Your task to perform on an android device: Show me the best rated 4K TV on Walmart. Image 0: 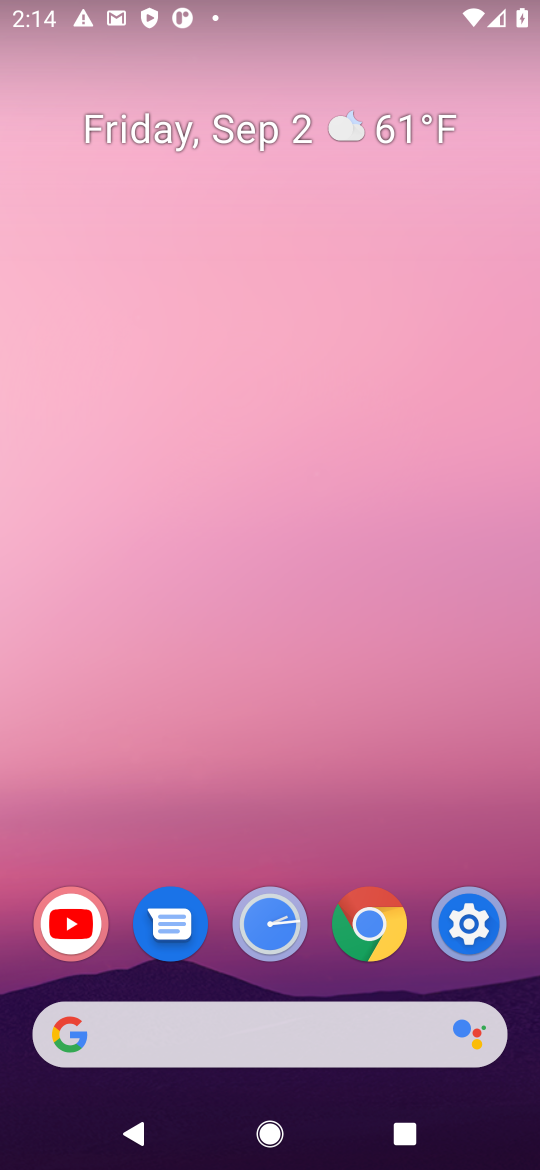
Step 0: click (373, 1040)
Your task to perform on an android device: Show me the best rated 4K TV on Walmart. Image 1: 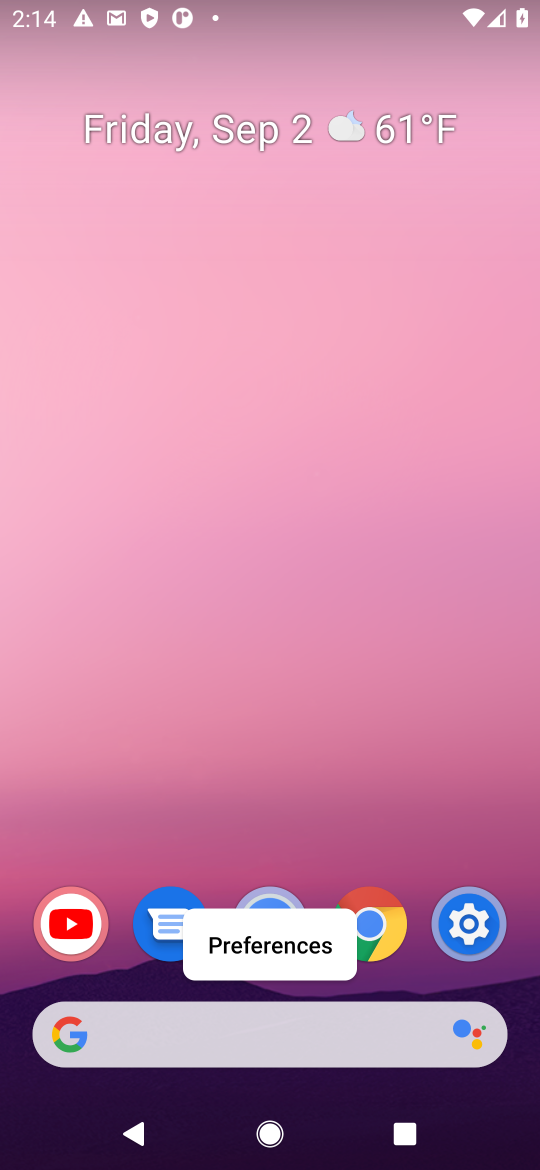
Step 1: click (373, 1040)
Your task to perform on an android device: Show me the best rated 4K TV on Walmart. Image 2: 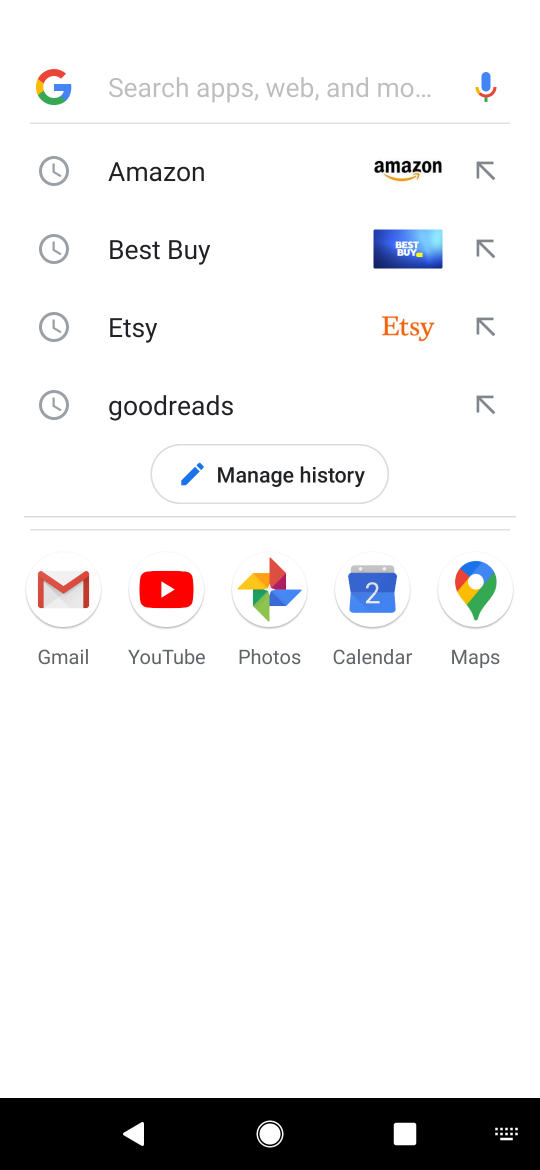
Step 2: press enter
Your task to perform on an android device: Show me the best rated 4K TV on Walmart. Image 3: 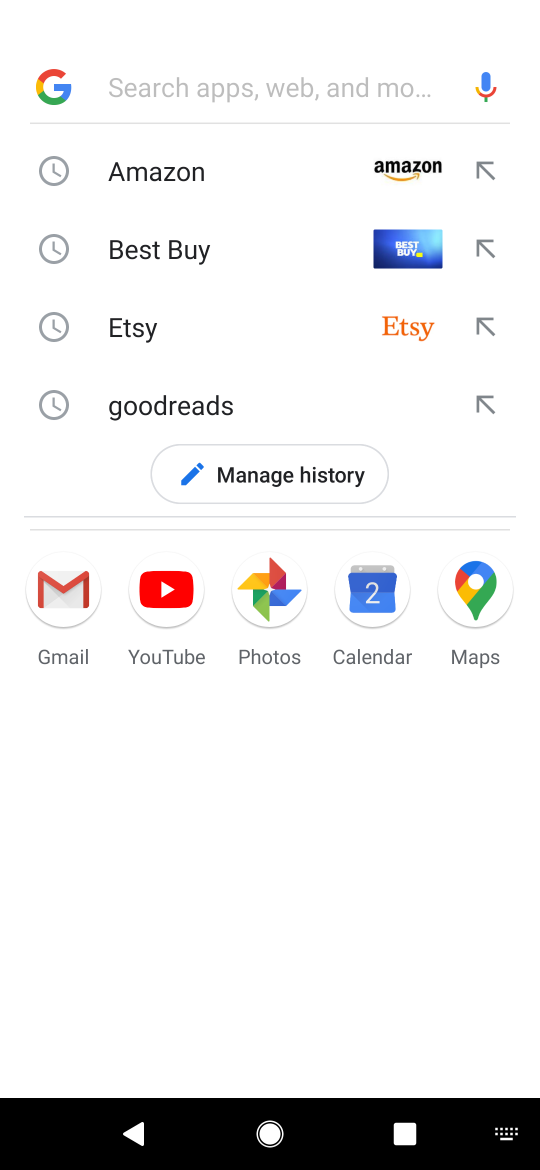
Step 3: type "walmart"
Your task to perform on an android device: Show me the best rated 4K TV on Walmart. Image 4: 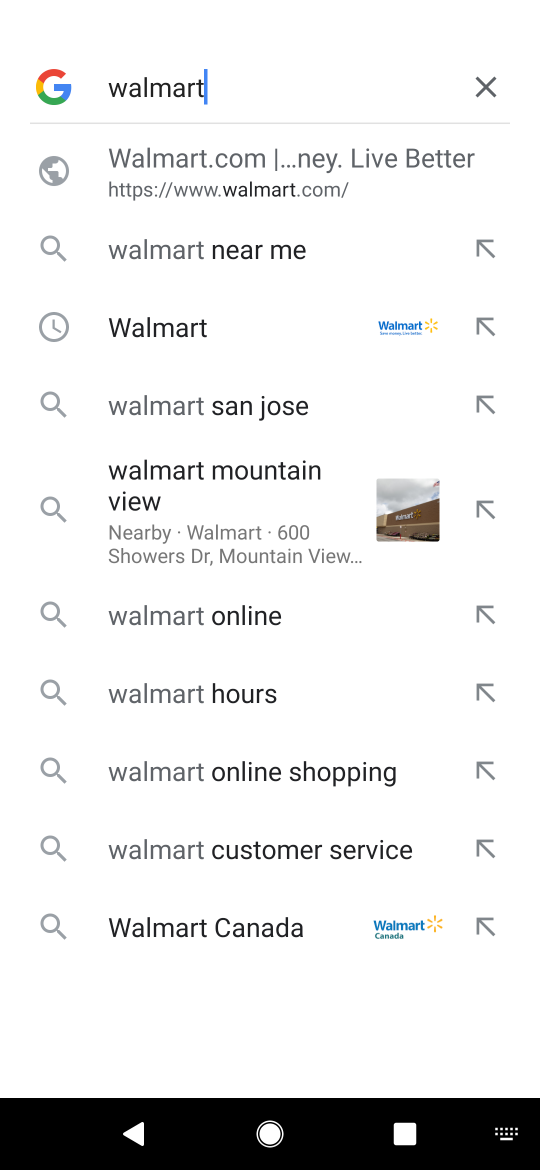
Step 4: click (240, 323)
Your task to perform on an android device: Show me the best rated 4K TV on Walmart. Image 5: 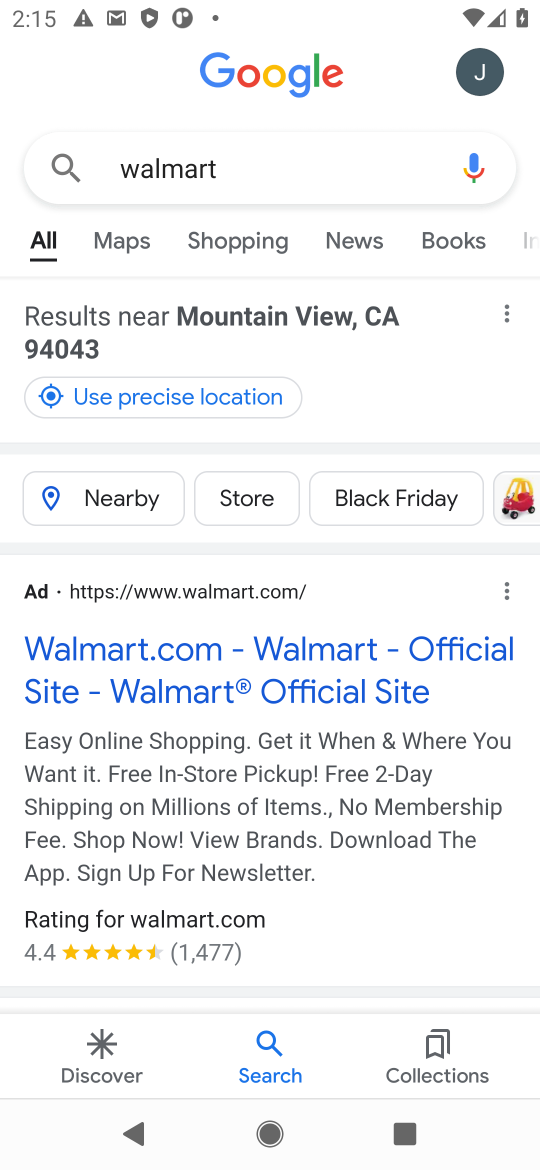
Step 5: click (313, 658)
Your task to perform on an android device: Show me the best rated 4K TV on Walmart. Image 6: 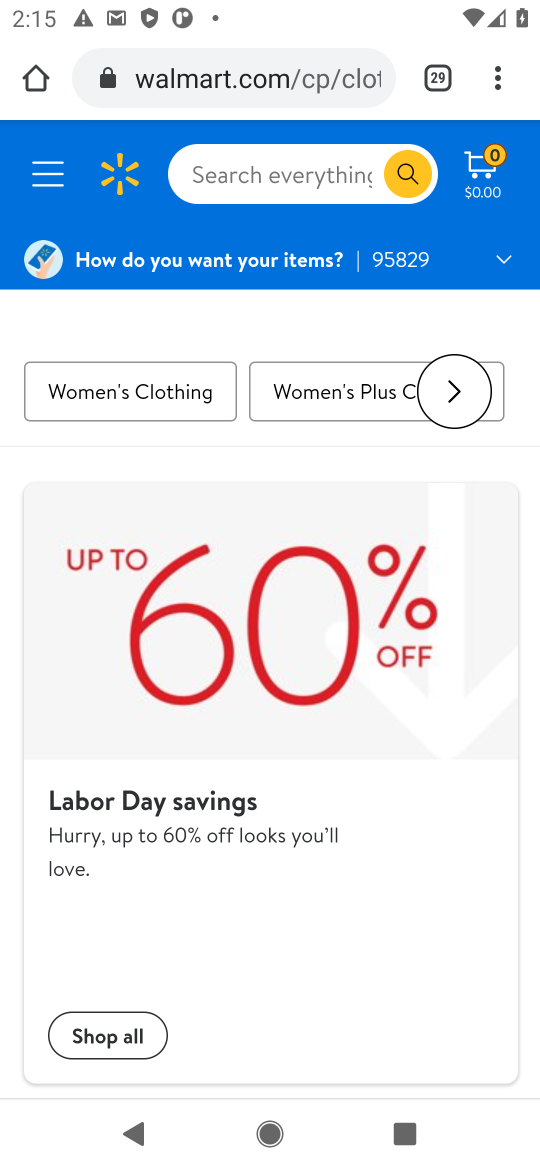
Step 6: click (297, 164)
Your task to perform on an android device: Show me the best rated 4K TV on Walmart. Image 7: 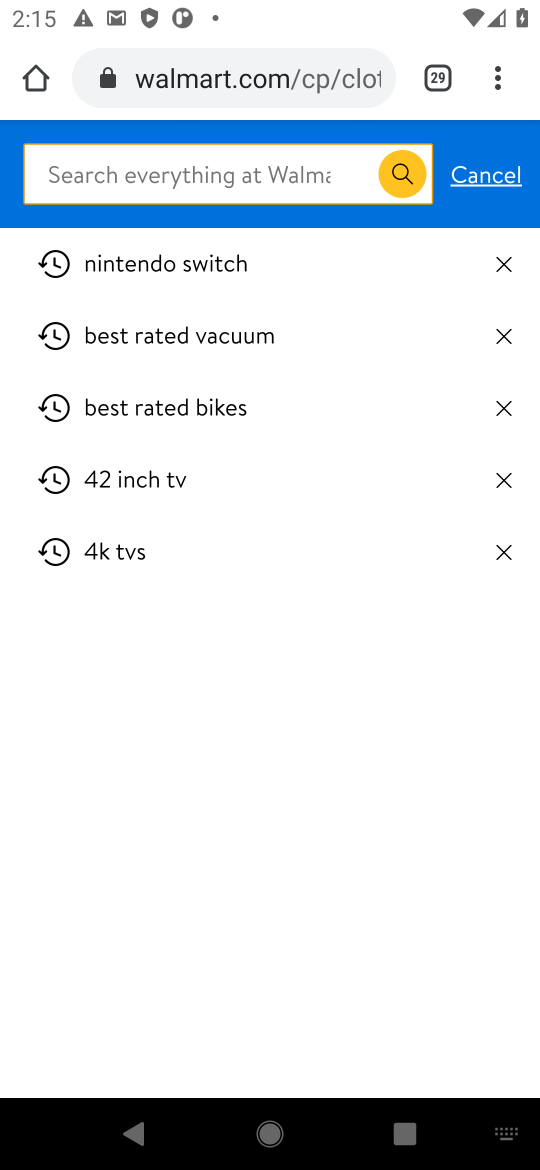
Step 7: type "4k tv"
Your task to perform on an android device: Show me the best rated 4K TV on Walmart. Image 8: 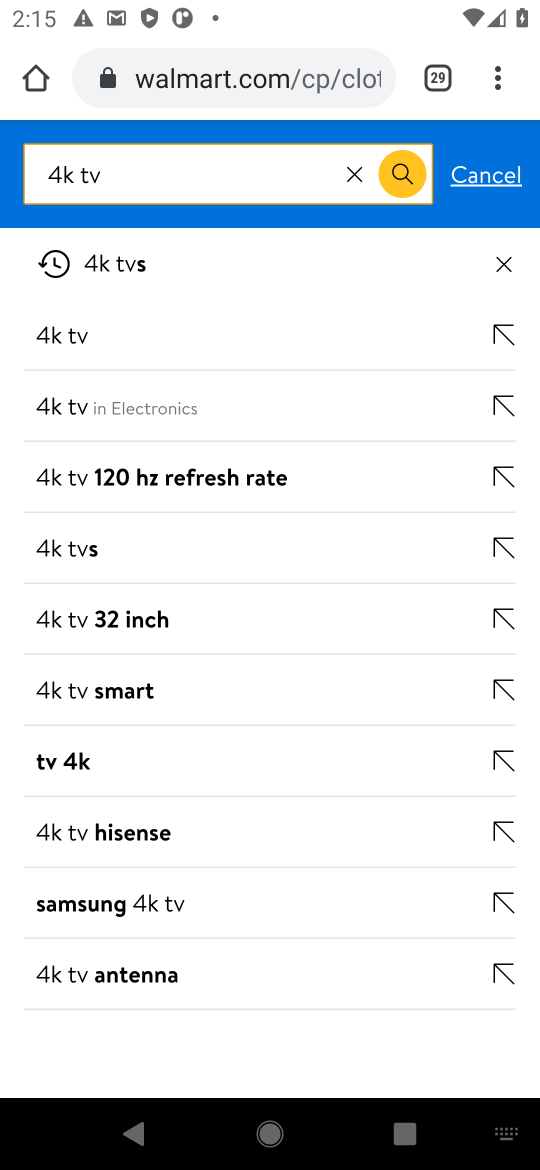
Step 8: click (150, 270)
Your task to perform on an android device: Show me the best rated 4K TV on Walmart. Image 9: 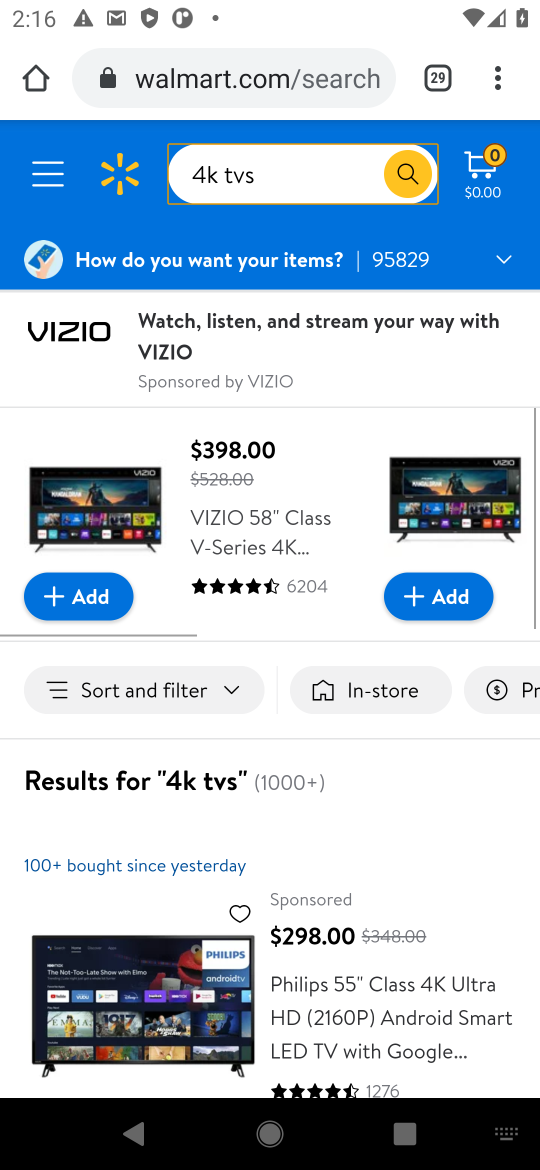
Step 9: task complete